Your task to perform on an android device: What's the weather today? Image 0: 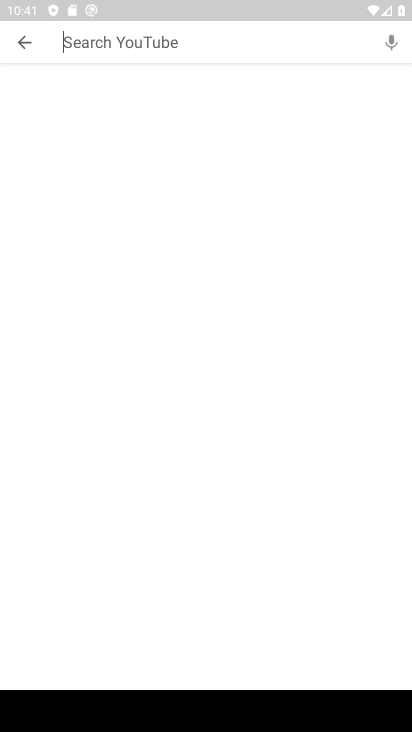
Step 0: press home button
Your task to perform on an android device: What's the weather today? Image 1: 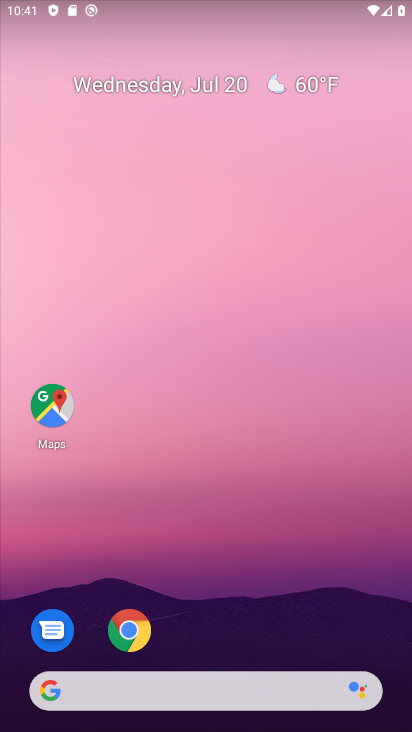
Step 1: drag from (257, 648) to (227, 58)
Your task to perform on an android device: What's the weather today? Image 2: 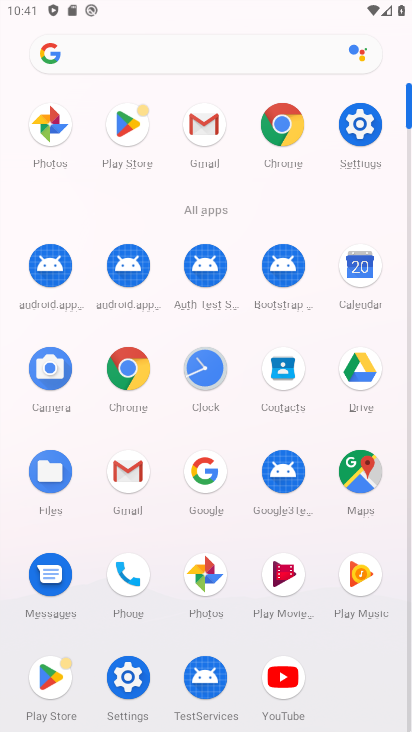
Step 2: click (210, 479)
Your task to perform on an android device: What's the weather today? Image 3: 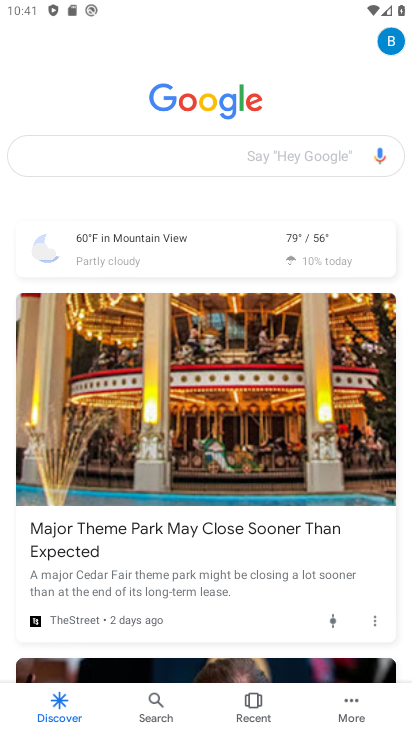
Step 3: click (183, 149)
Your task to perform on an android device: What's the weather today? Image 4: 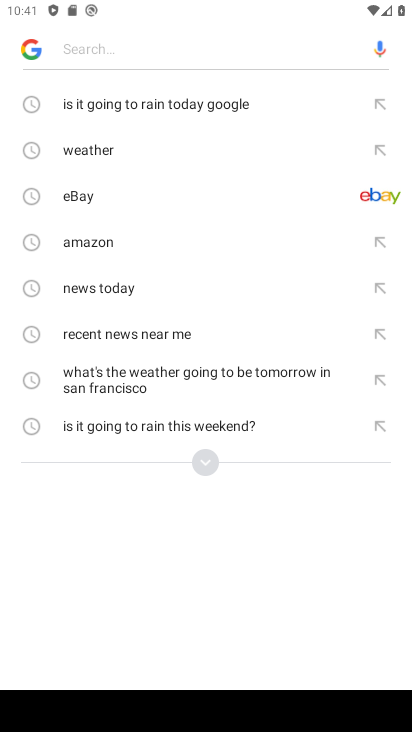
Step 4: click (87, 152)
Your task to perform on an android device: What's the weather today? Image 5: 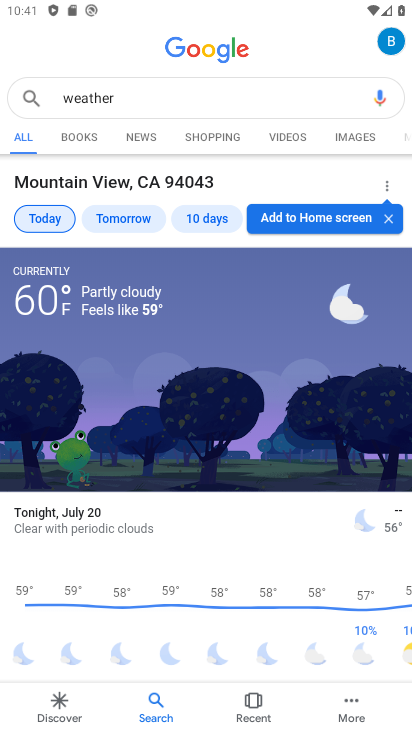
Step 5: task complete